Your task to perform on an android device: create a new album in the google photos Image 0: 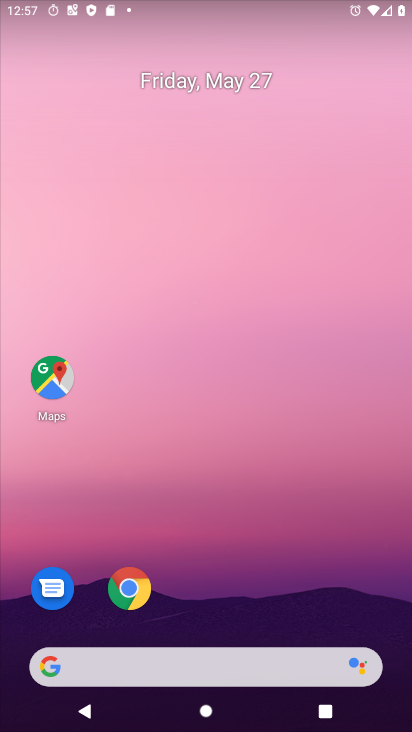
Step 0: drag from (228, 621) to (252, 114)
Your task to perform on an android device: create a new album in the google photos Image 1: 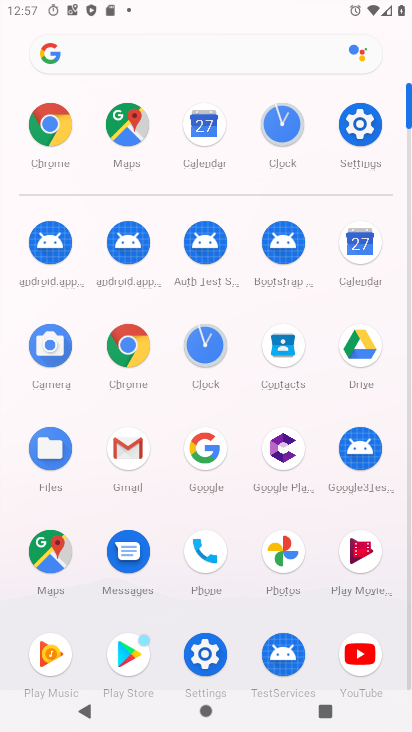
Step 1: click (284, 552)
Your task to perform on an android device: create a new album in the google photos Image 2: 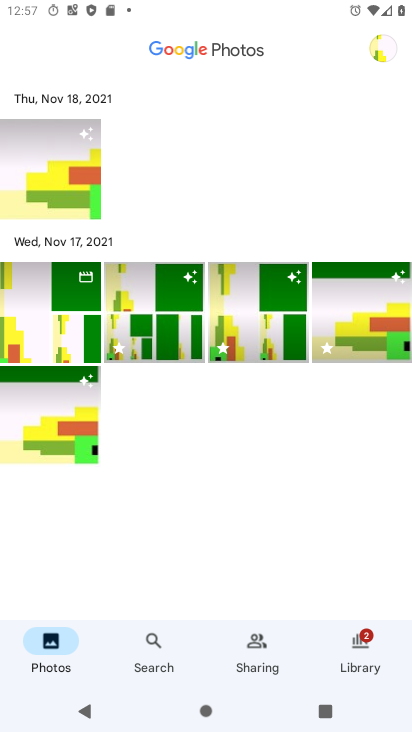
Step 2: click (256, 640)
Your task to perform on an android device: create a new album in the google photos Image 3: 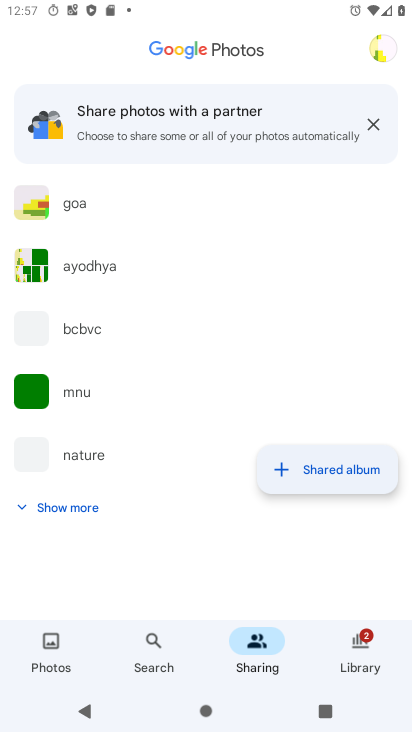
Step 3: click (285, 469)
Your task to perform on an android device: create a new album in the google photos Image 4: 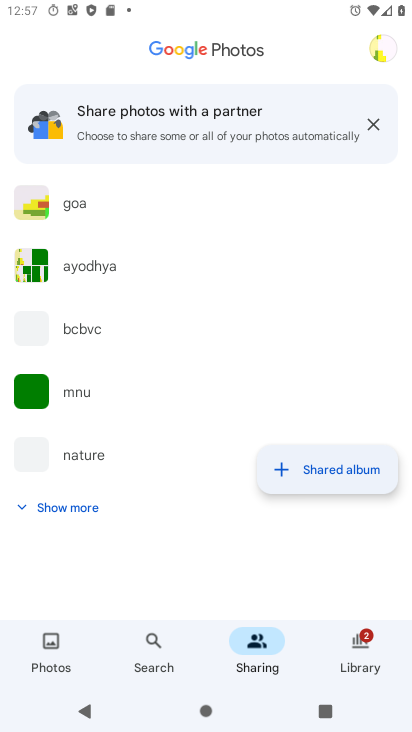
Step 4: click (285, 469)
Your task to perform on an android device: create a new album in the google photos Image 5: 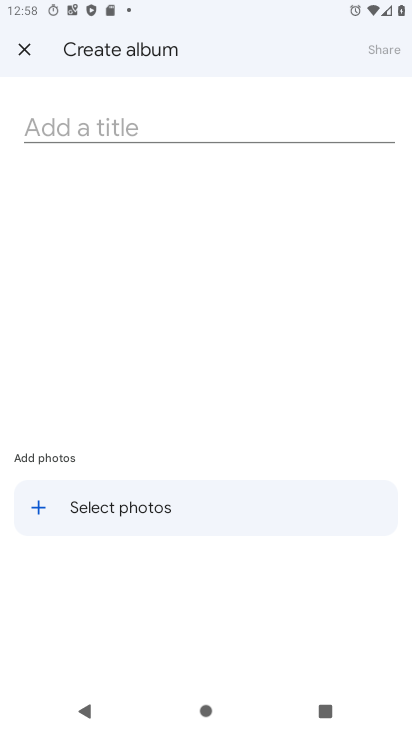
Step 5: click (43, 499)
Your task to perform on an android device: create a new album in the google photos Image 6: 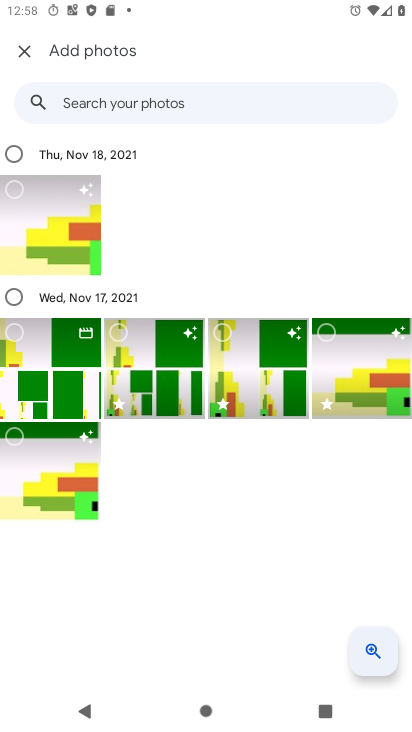
Step 6: click (10, 295)
Your task to perform on an android device: create a new album in the google photos Image 7: 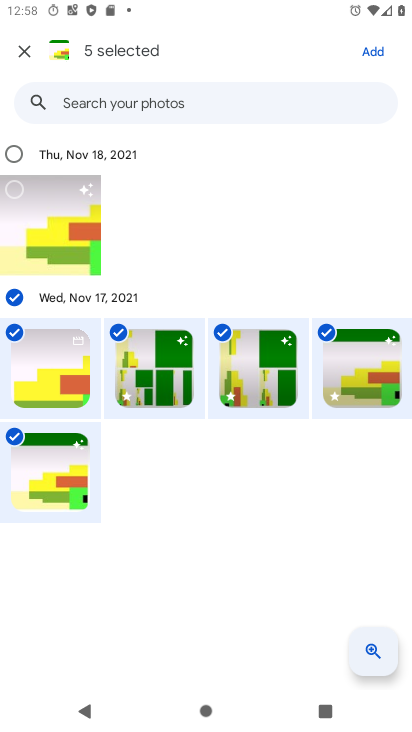
Step 7: click (381, 42)
Your task to perform on an android device: create a new album in the google photos Image 8: 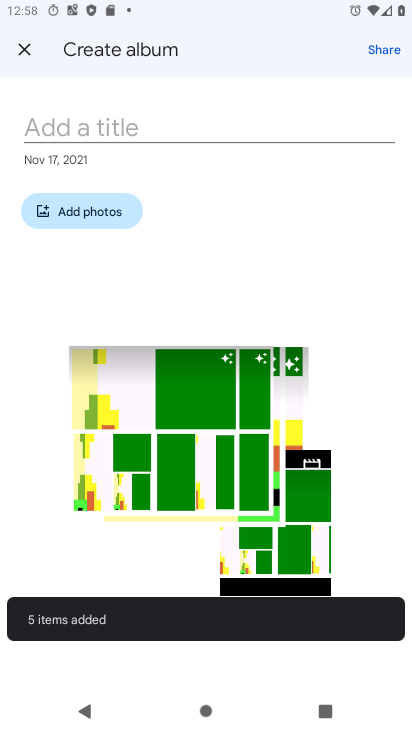
Step 8: click (85, 126)
Your task to perform on an android device: create a new album in the google photos Image 9: 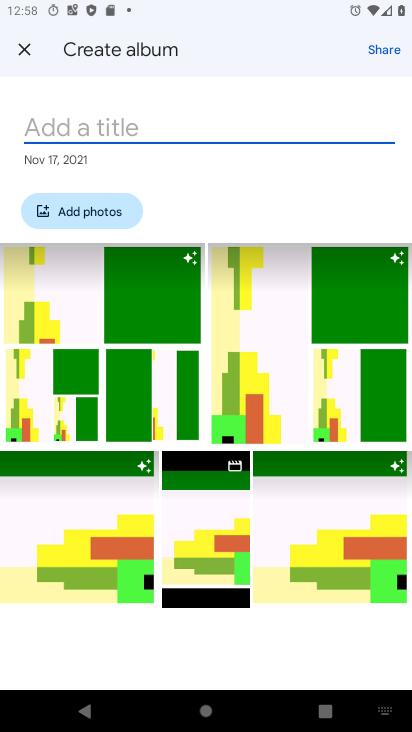
Step 9: type "jgvvfdfcgf"
Your task to perform on an android device: create a new album in the google photos Image 10: 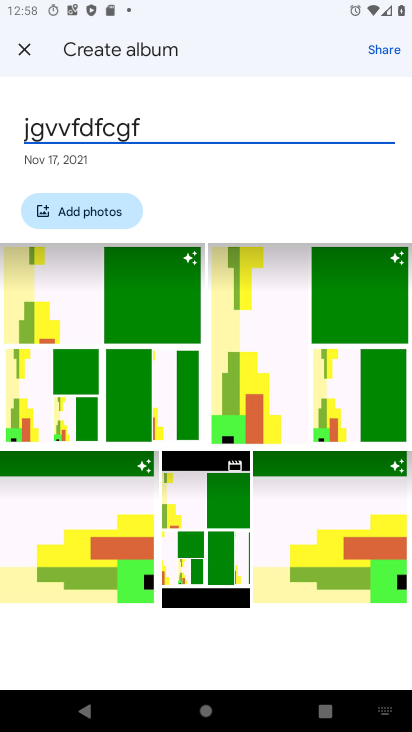
Step 10: click (166, 203)
Your task to perform on an android device: create a new album in the google photos Image 11: 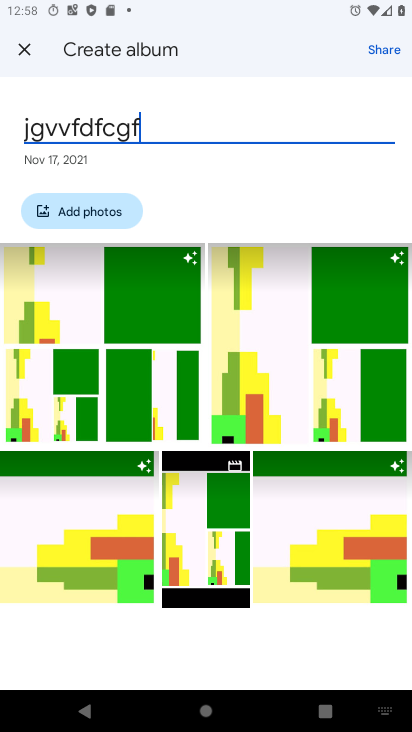
Step 11: task complete